Your task to perform on an android device: check storage Image 0: 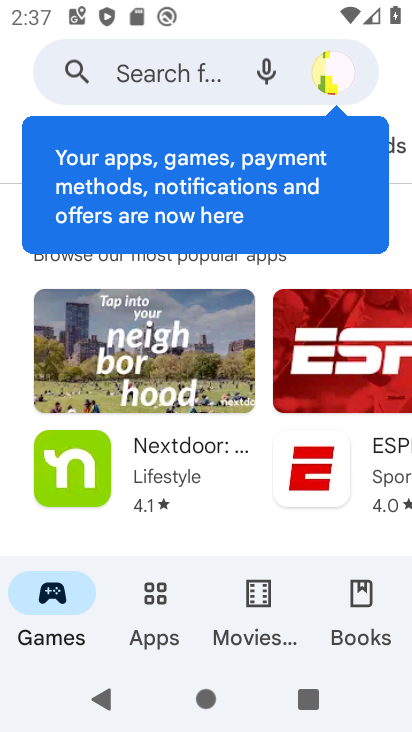
Step 0: press back button
Your task to perform on an android device: check storage Image 1: 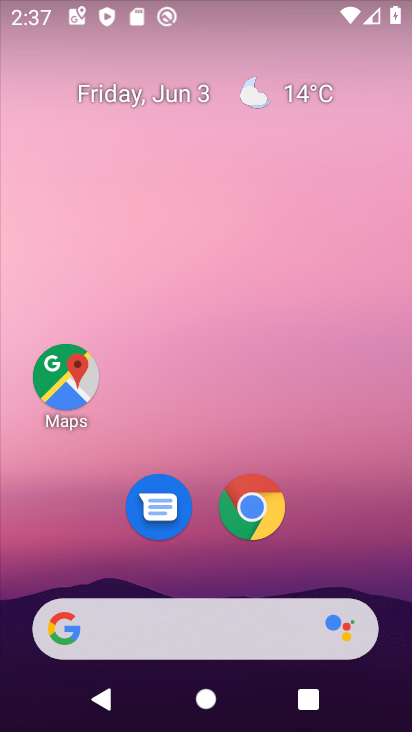
Step 1: drag from (330, 539) to (214, 104)
Your task to perform on an android device: check storage Image 2: 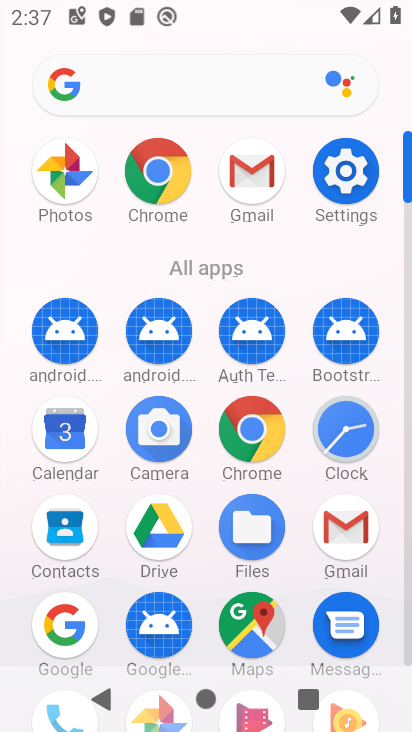
Step 2: click (346, 171)
Your task to perform on an android device: check storage Image 3: 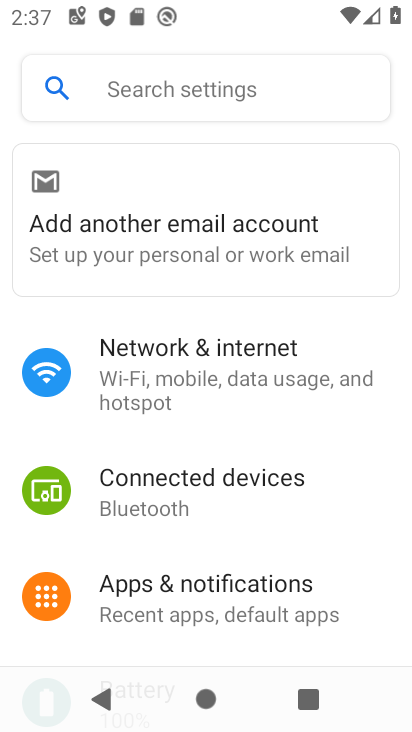
Step 3: drag from (200, 552) to (245, 444)
Your task to perform on an android device: check storage Image 4: 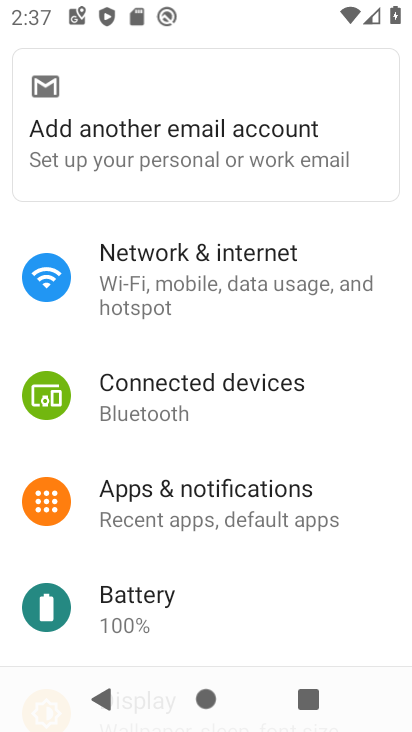
Step 4: drag from (202, 554) to (269, 423)
Your task to perform on an android device: check storage Image 5: 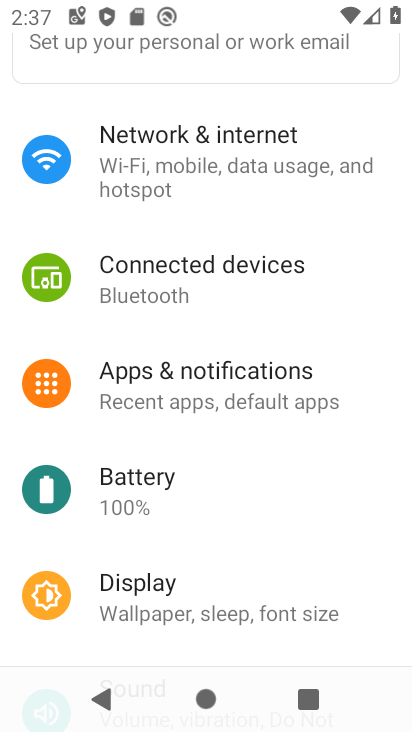
Step 5: drag from (151, 532) to (205, 411)
Your task to perform on an android device: check storage Image 6: 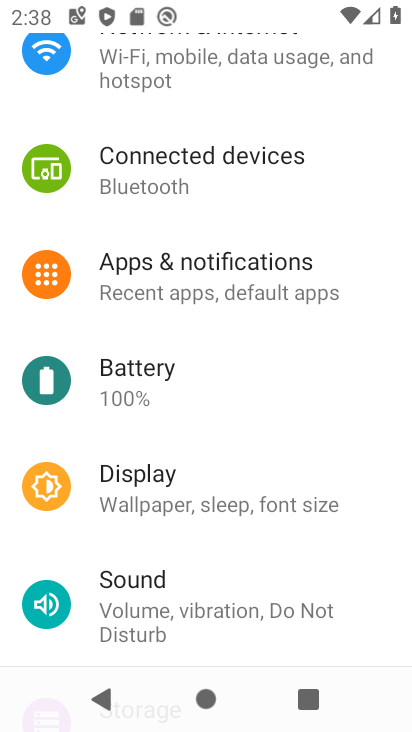
Step 6: drag from (177, 548) to (238, 442)
Your task to perform on an android device: check storage Image 7: 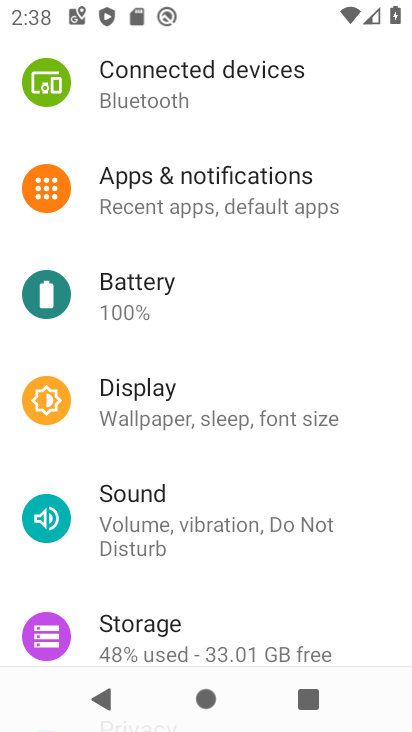
Step 7: drag from (193, 570) to (262, 415)
Your task to perform on an android device: check storage Image 8: 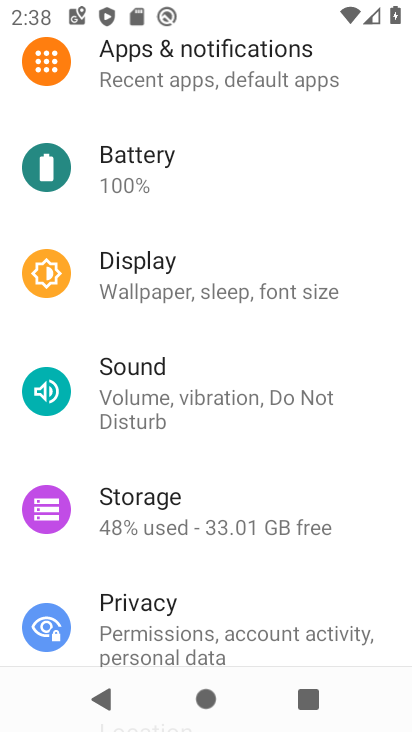
Step 8: click (157, 511)
Your task to perform on an android device: check storage Image 9: 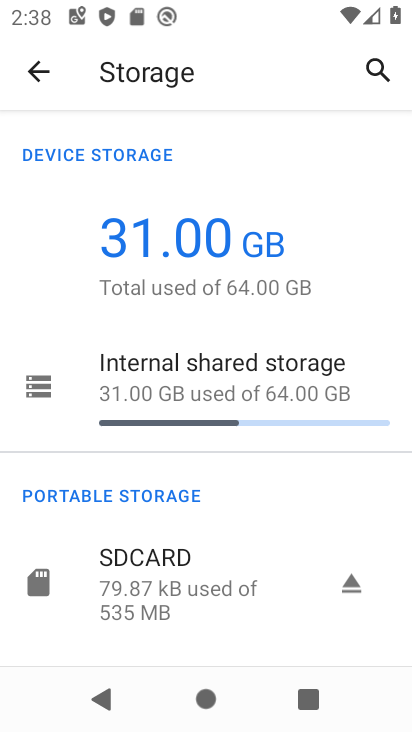
Step 9: task complete